Your task to perform on an android device: check data usage Image 0: 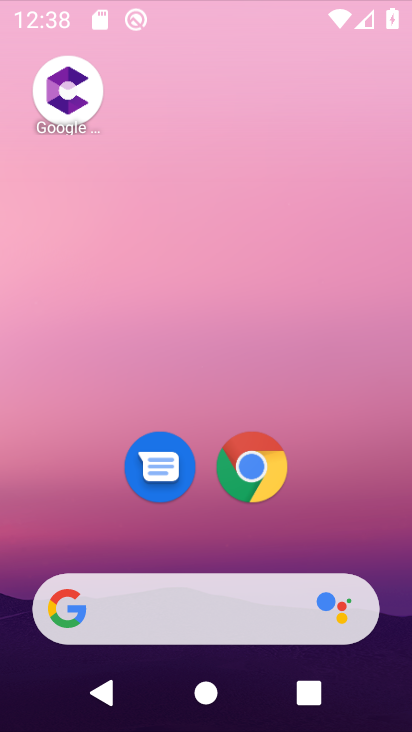
Step 0: click (272, 47)
Your task to perform on an android device: check data usage Image 1: 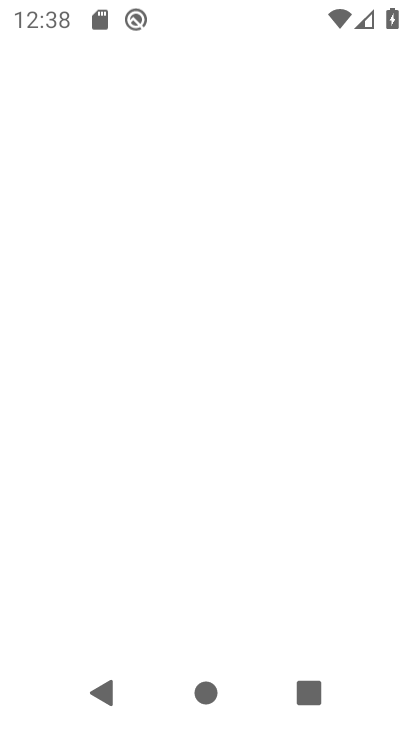
Step 1: drag from (206, 604) to (296, 83)
Your task to perform on an android device: check data usage Image 2: 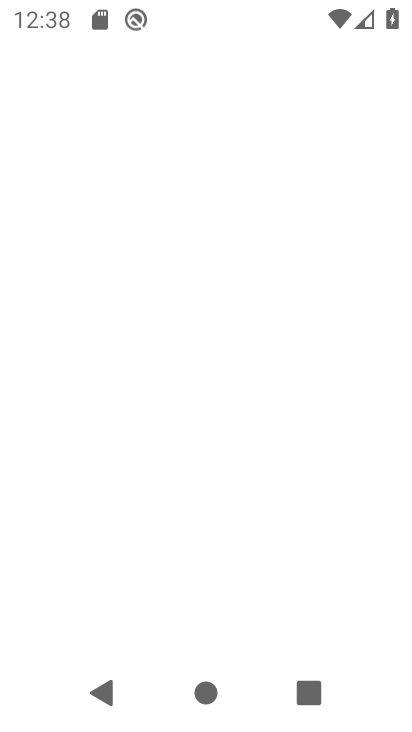
Step 2: press home button
Your task to perform on an android device: check data usage Image 3: 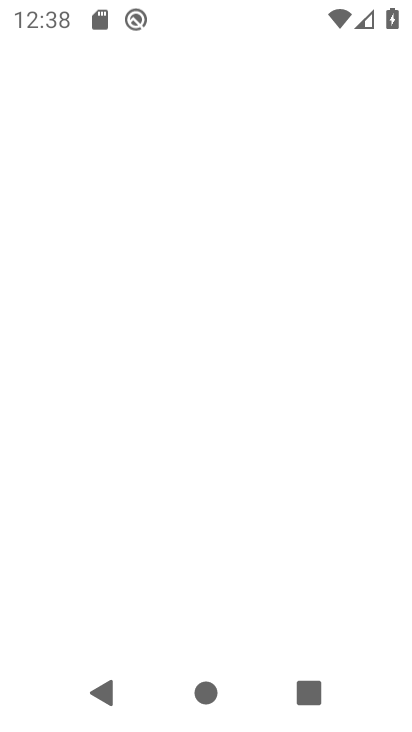
Step 3: press home button
Your task to perform on an android device: check data usage Image 4: 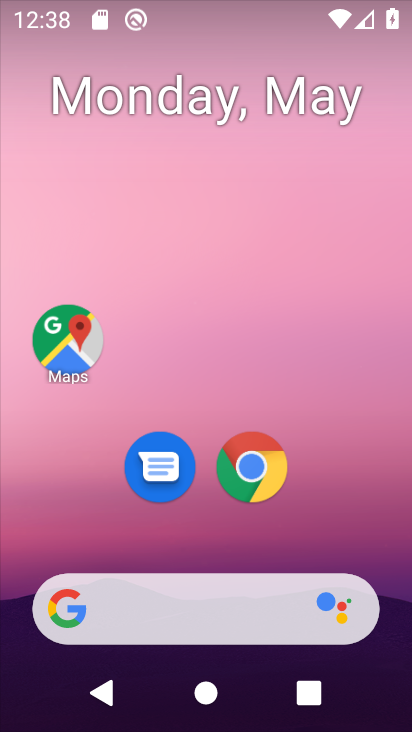
Step 4: drag from (211, 532) to (222, 84)
Your task to perform on an android device: check data usage Image 5: 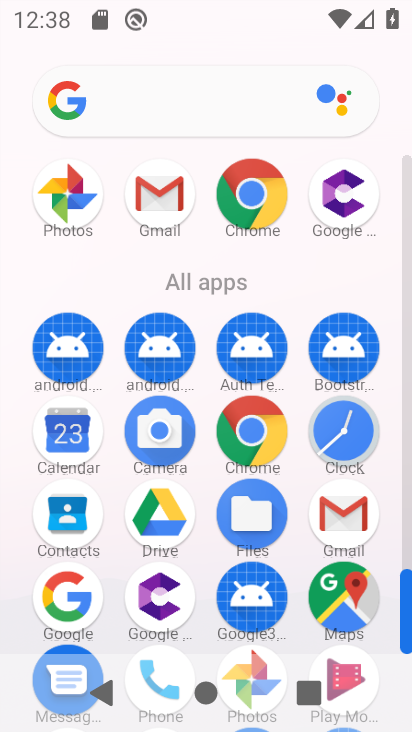
Step 5: click (186, 242)
Your task to perform on an android device: check data usage Image 6: 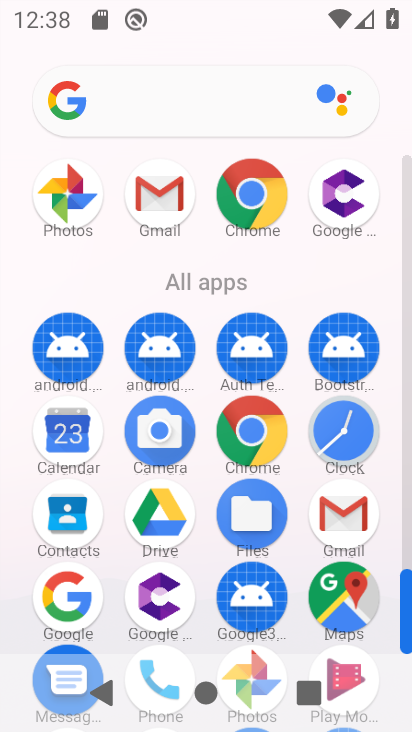
Step 6: drag from (220, 558) to (226, 172)
Your task to perform on an android device: check data usage Image 7: 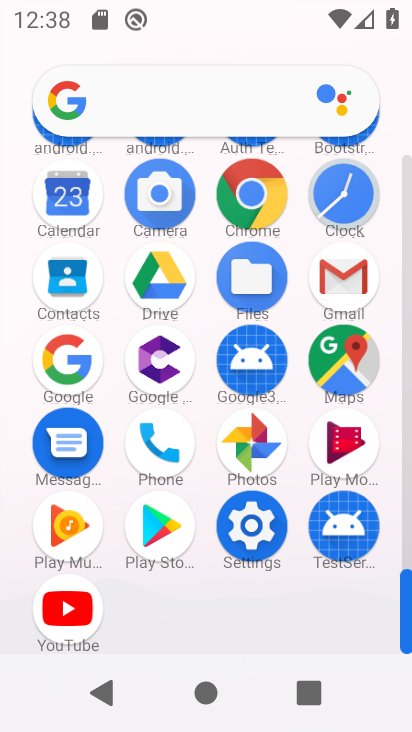
Step 7: click (247, 539)
Your task to perform on an android device: check data usage Image 8: 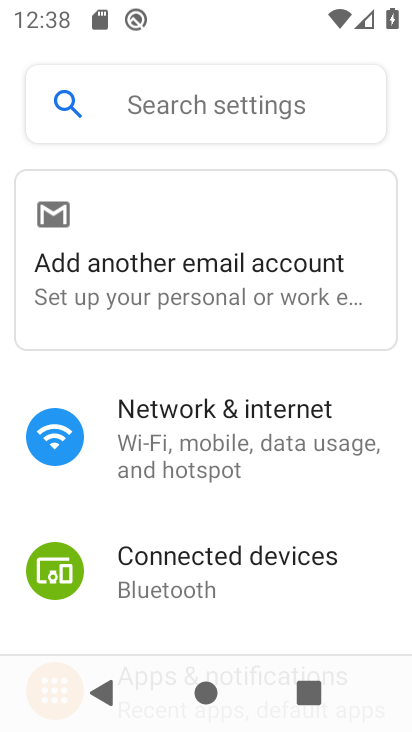
Step 8: click (181, 456)
Your task to perform on an android device: check data usage Image 9: 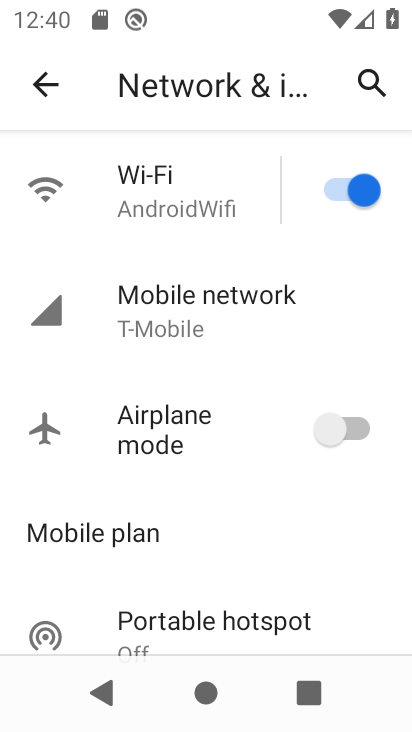
Step 9: drag from (236, 554) to (301, 218)
Your task to perform on an android device: check data usage Image 10: 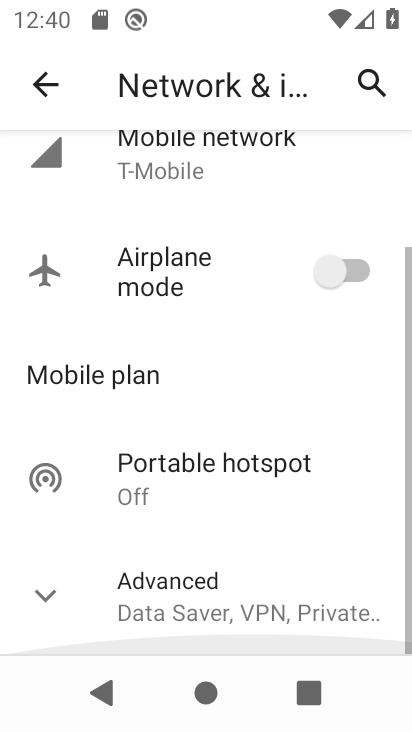
Step 10: drag from (301, 218) to (318, 706)
Your task to perform on an android device: check data usage Image 11: 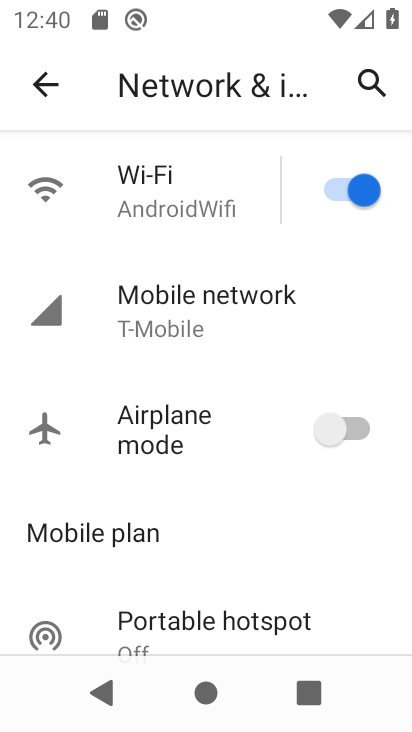
Step 11: click (170, 287)
Your task to perform on an android device: check data usage Image 12: 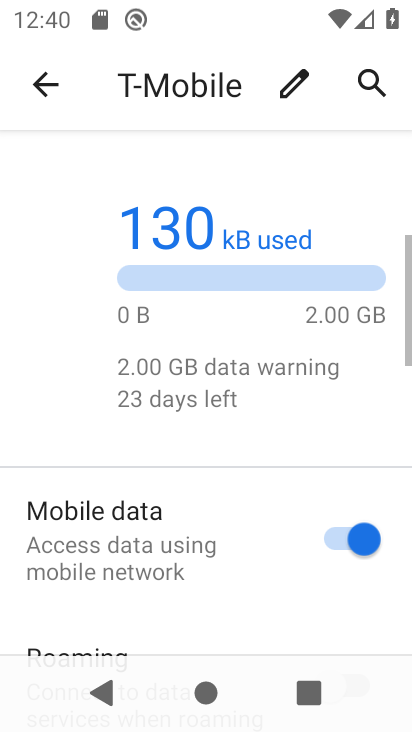
Step 12: task complete